Your task to perform on an android device: Go to notification settings Image 0: 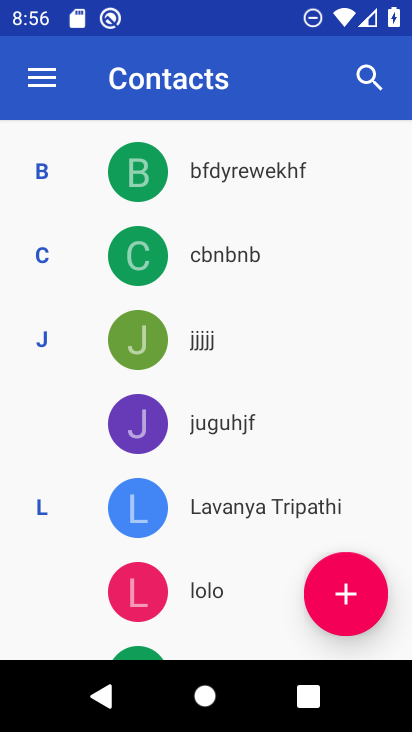
Step 0: press home button
Your task to perform on an android device: Go to notification settings Image 1: 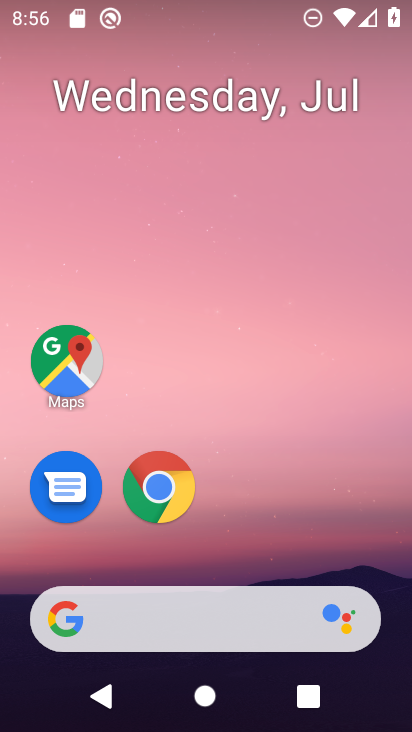
Step 1: drag from (312, 504) to (344, 68)
Your task to perform on an android device: Go to notification settings Image 2: 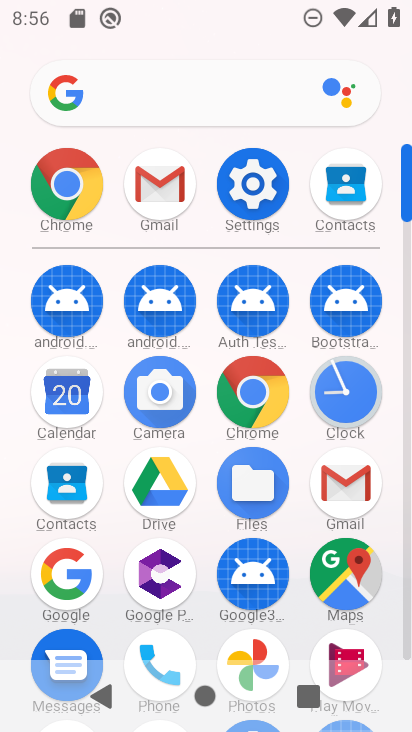
Step 2: click (267, 194)
Your task to perform on an android device: Go to notification settings Image 3: 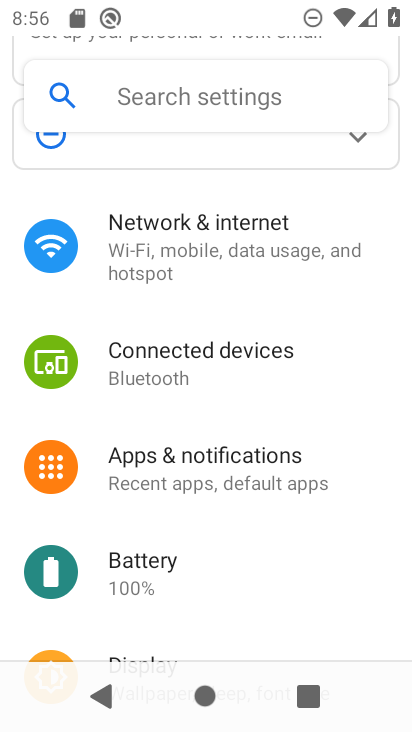
Step 3: click (285, 466)
Your task to perform on an android device: Go to notification settings Image 4: 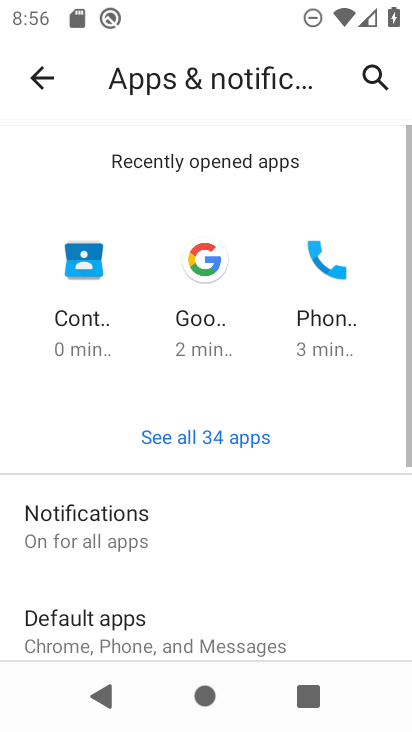
Step 4: click (194, 538)
Your task to perform on an android device: Go to notification settings Image 5: 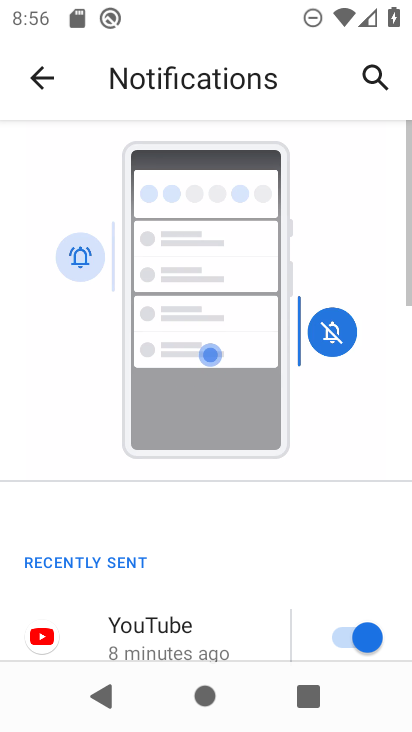
Step 5: task complete